Your task to perform on an android device: open app "Move to iOS" (install if not already installed) Image 0: 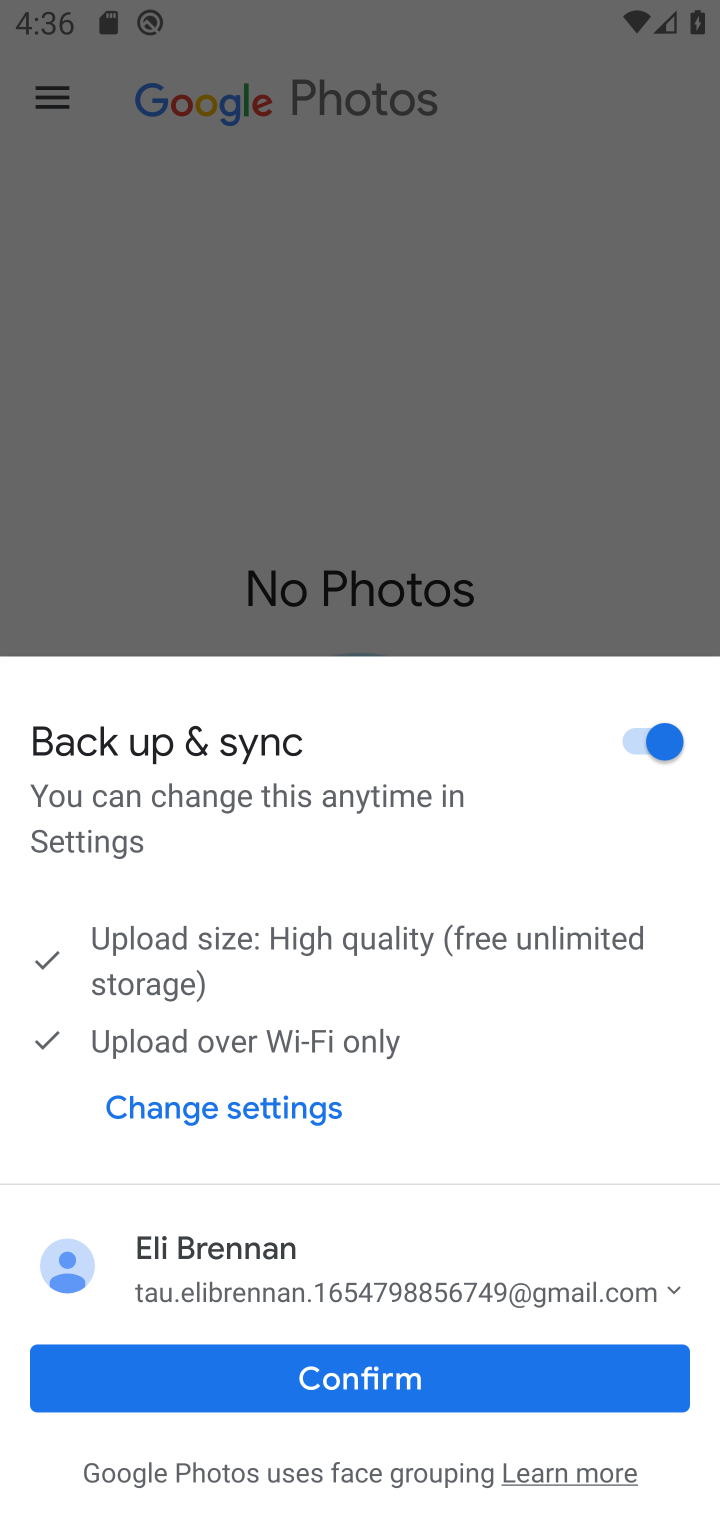
Step 0: press home button
Your task to perform on an android device: open app "Move to iOS" (install if not already installed) Image 1: 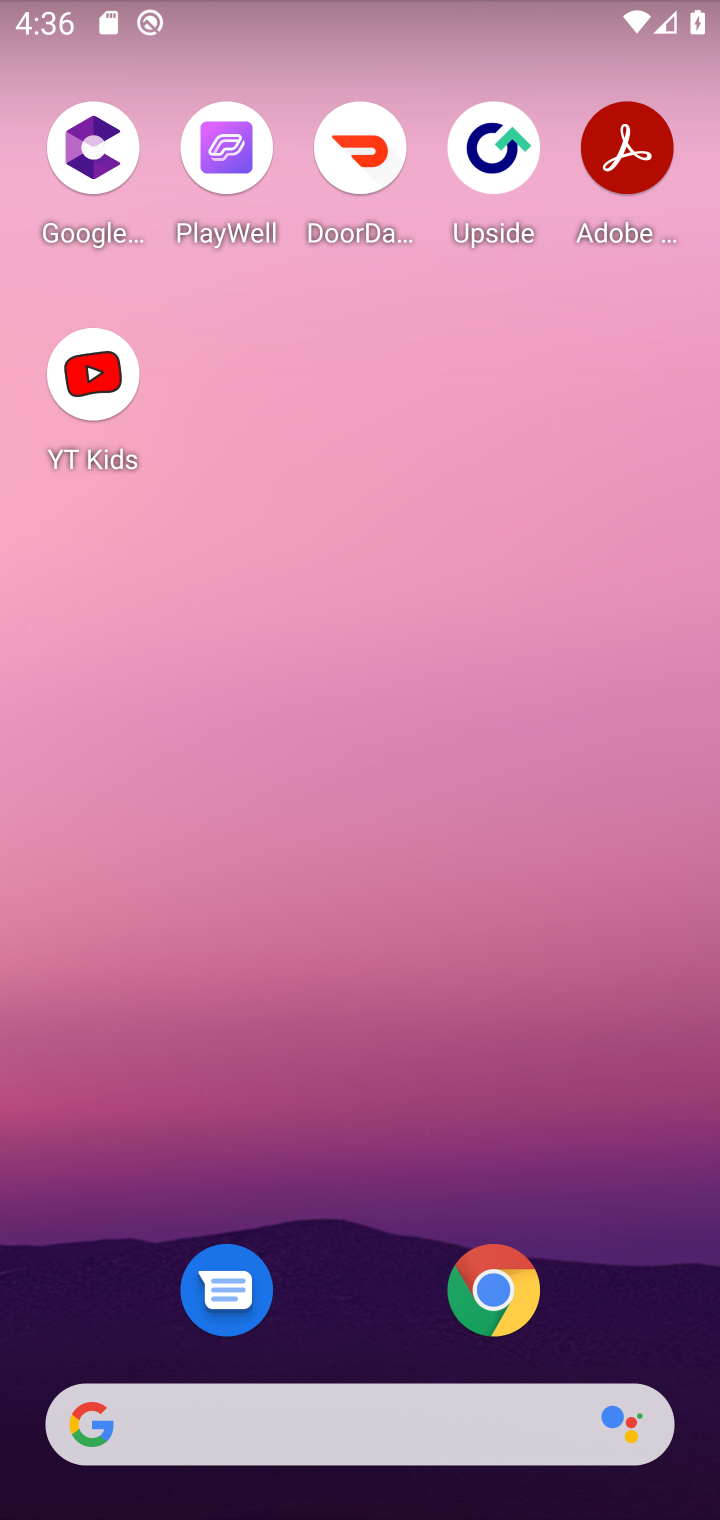
Step 1: drag from (501, 1444) to (357, 78)
Your task to perform on an android device: open app "Move to iOS" (install if not already installed) Image 2: 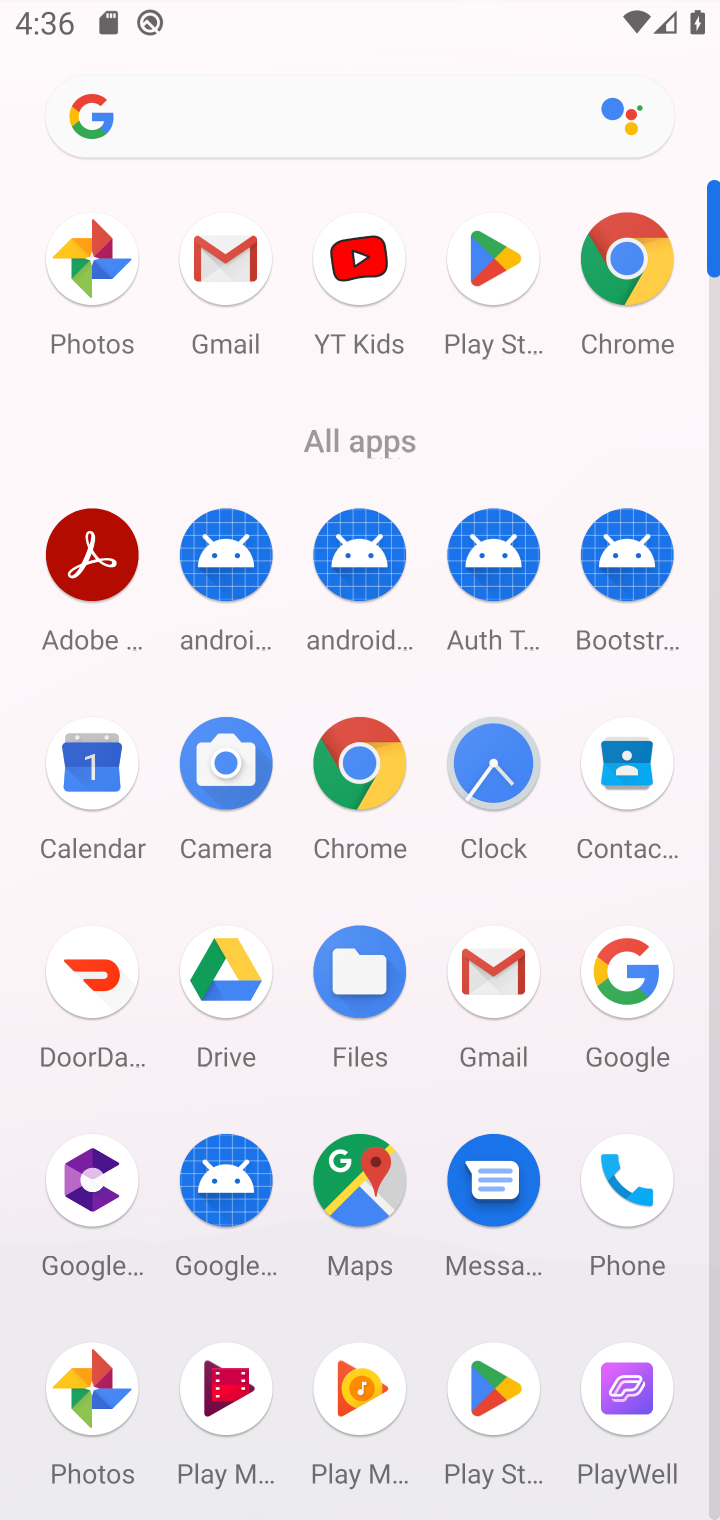
Step 2: click (499, 263)
Your task to perform on an android device: open app "Move to iOS" (install if not already installed) Image 3: 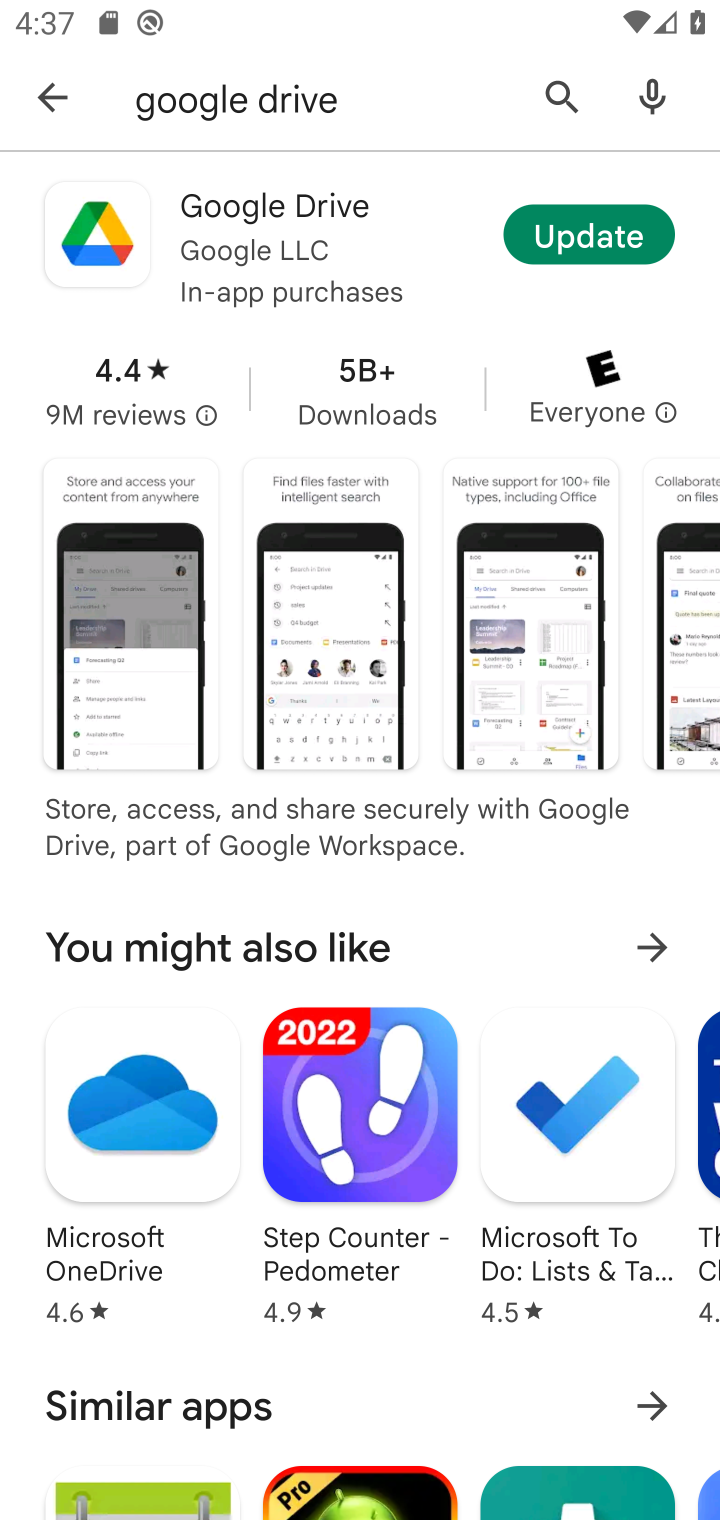
Step 3: click (570, 108)
Your task to perform on an android device: open app "Move to iOS" (install if not already installed) Image 4: 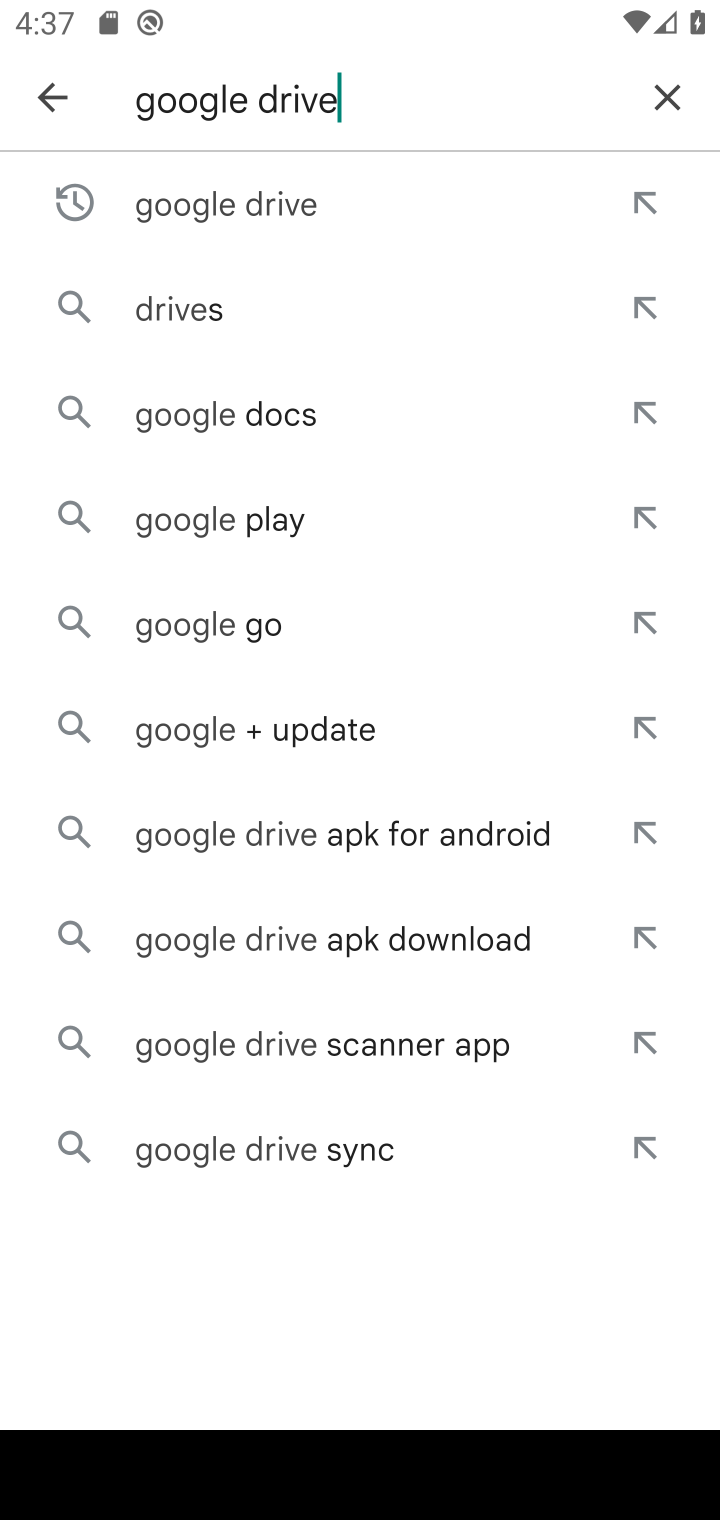
Step 4: click (665, 106)
Your task to perform on an android device: open app "Move to iOS" (install if not already installed) Image 5: 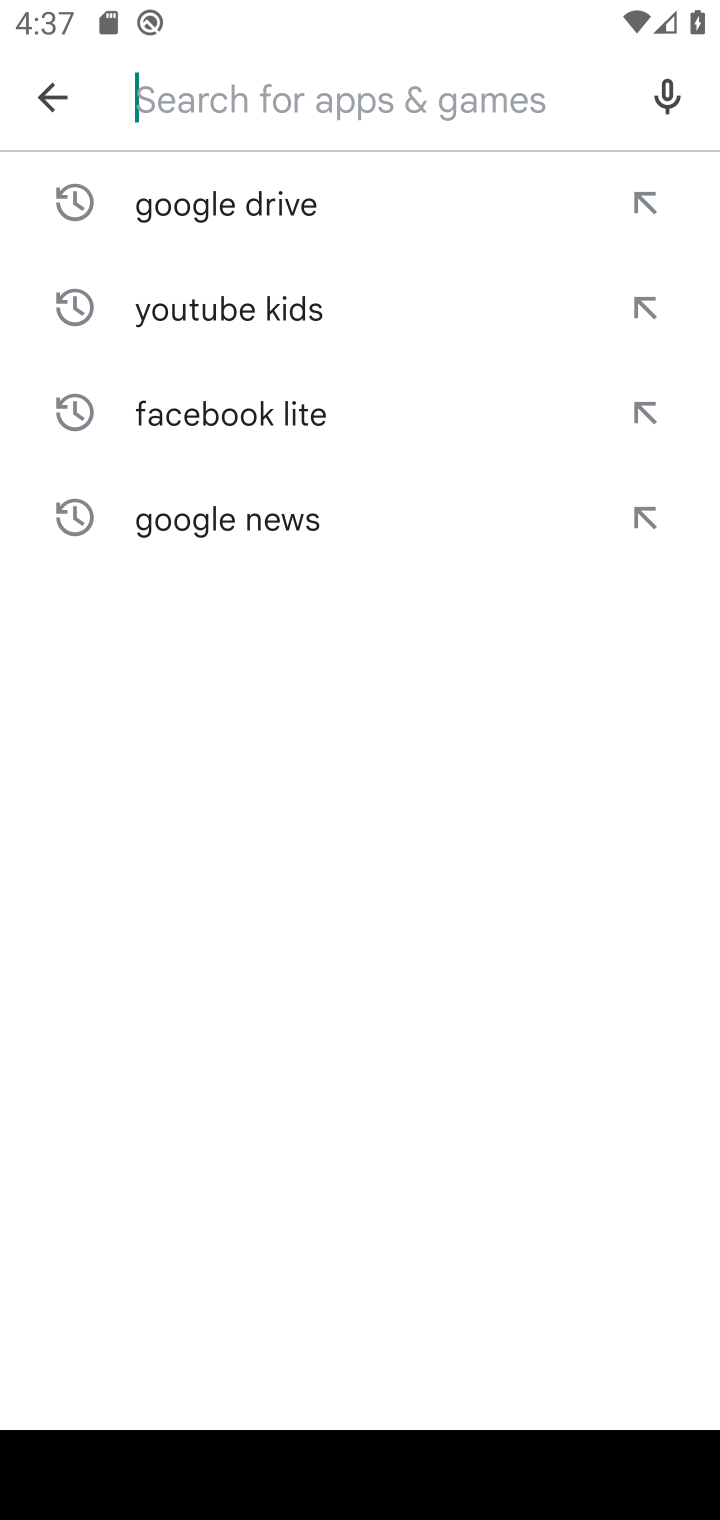
Step 5: type "move to ios"
Your task to perform on an android device: open app "Move to iOS" (install if not already installed) Image 6: 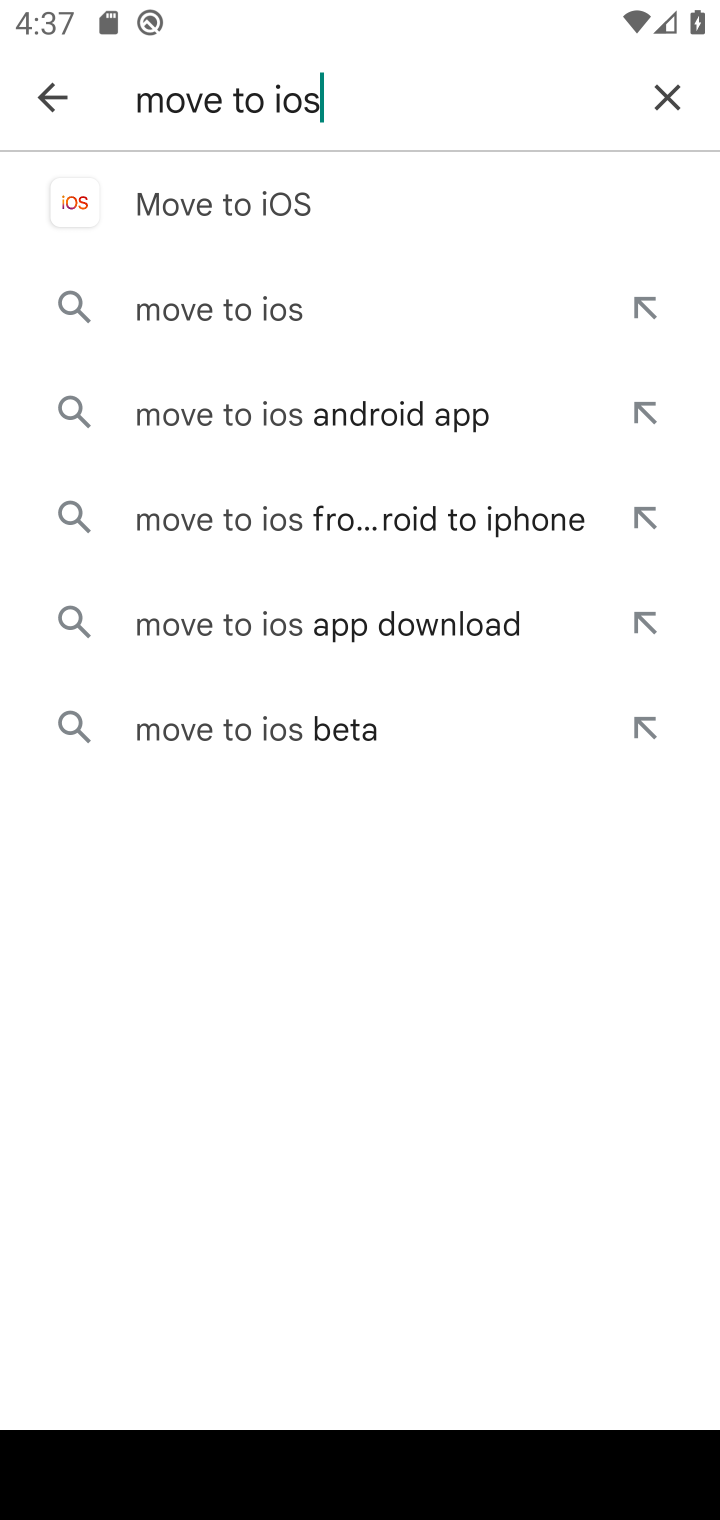
Step 6: click (270, 192)
Your task to perform on an android device: open app "Move to iOS" (install if not already installed) Image 7: 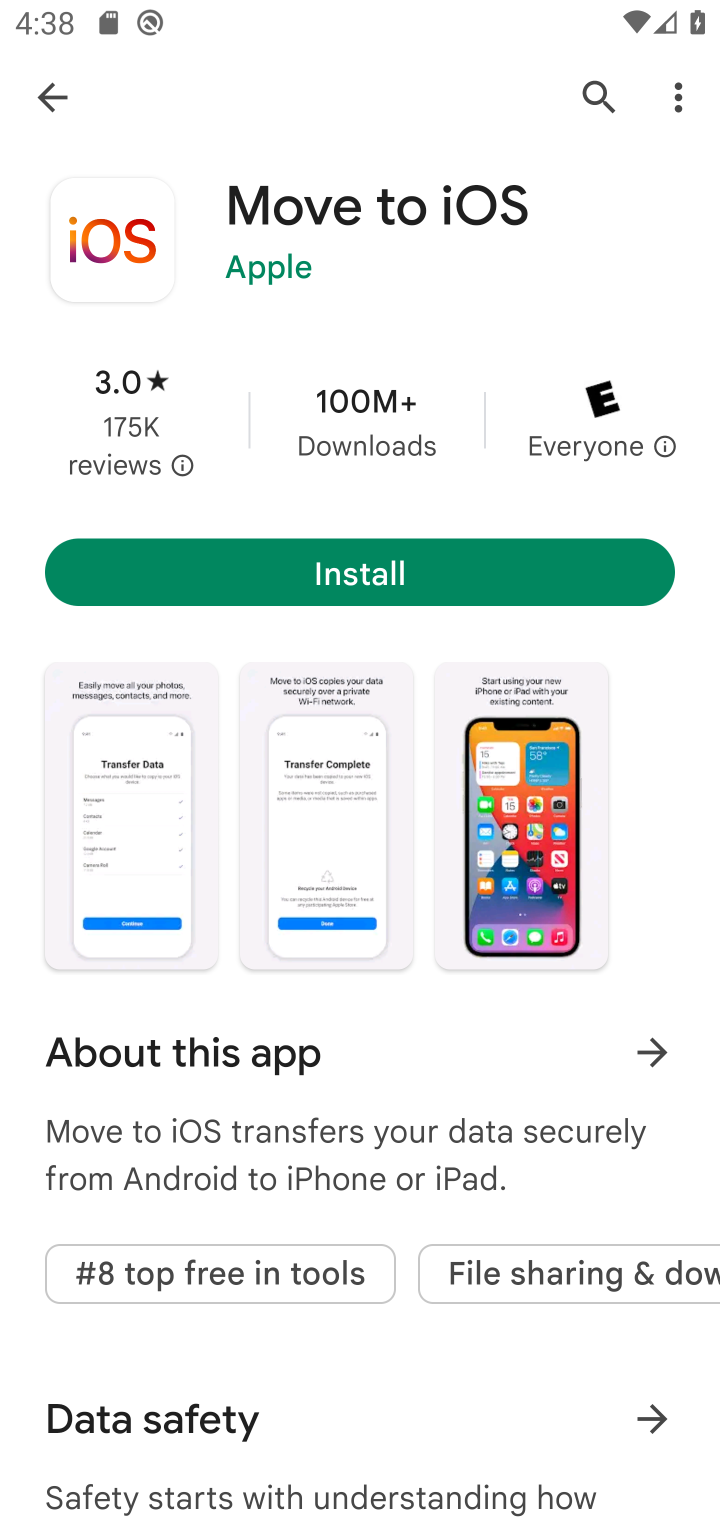
Step 7: click (521, 567)
Your task to perform on an android device: open app "Move to iOS" (install if not already installed) Image 8: 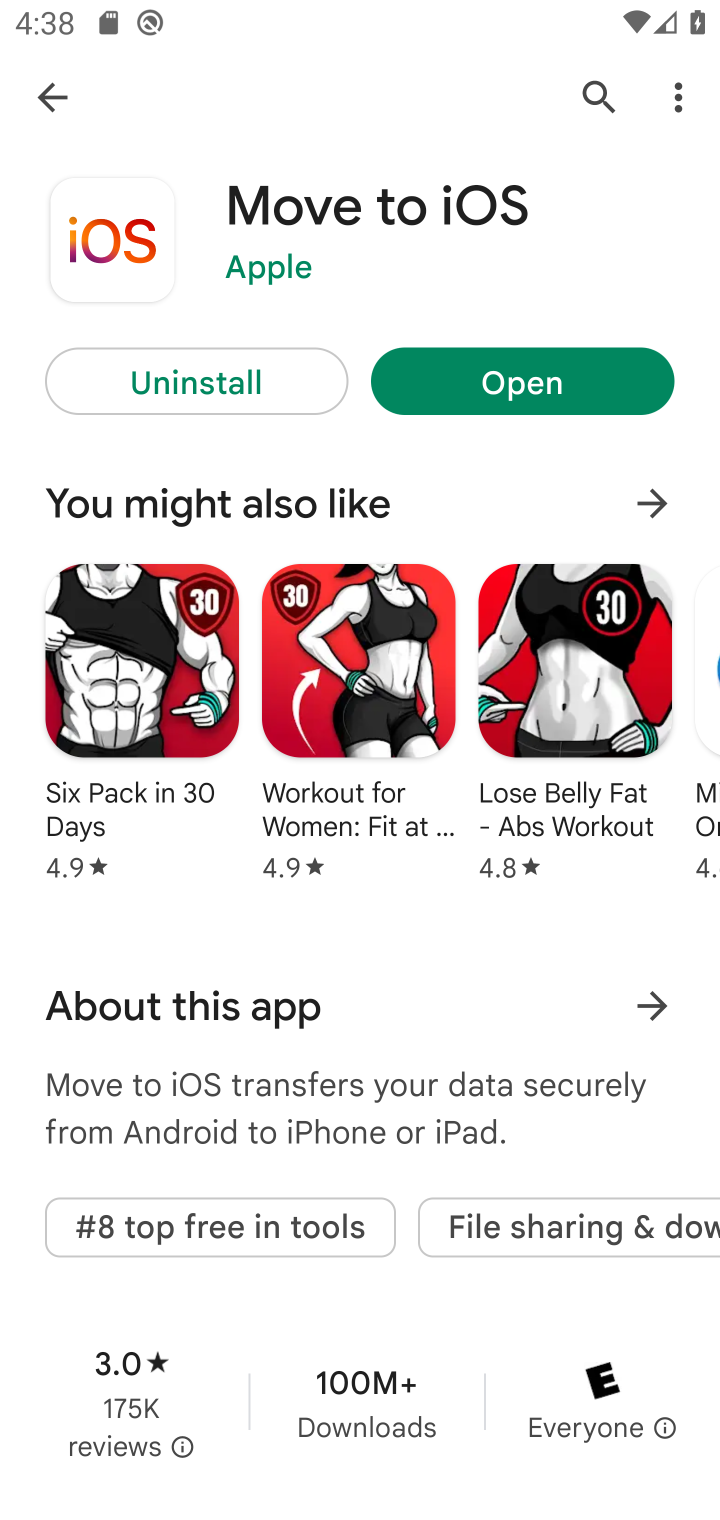
Step 8: task complete